Your task to perform on an android device: Search for seafood restaurants on Google Maps Image 0: 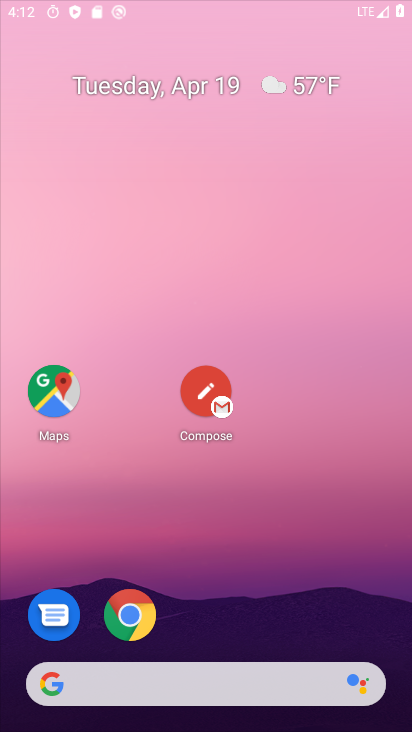
Step 0: click (226, 14)
Your task to perform on an android device: Search for seafood restaurants on Google Maps Image 1: 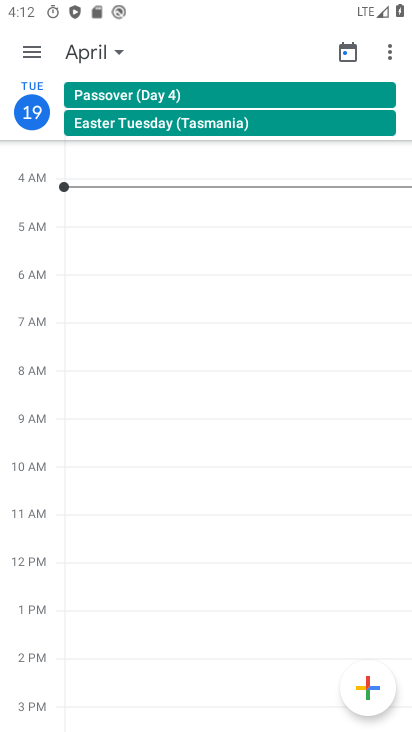
Step 1: press home button
Your task to perform on an android device: Search for seafood restaurants on Google Maps Image 2: 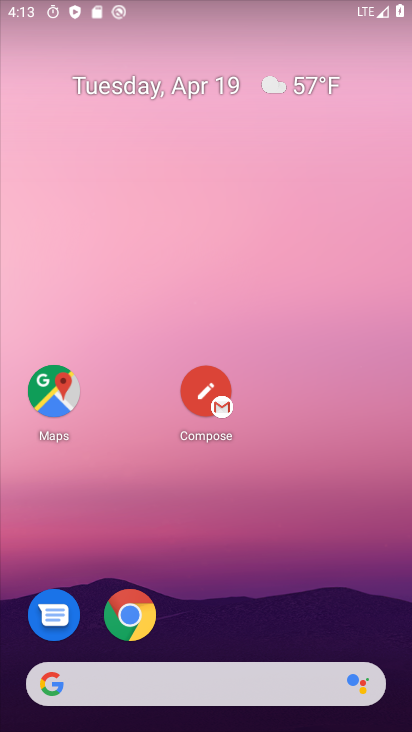
Step 2: drag from (277, 715) to (290, 49)
Your task to perform on an android device: Search for seafood restaurants on Google Maps Image 3: 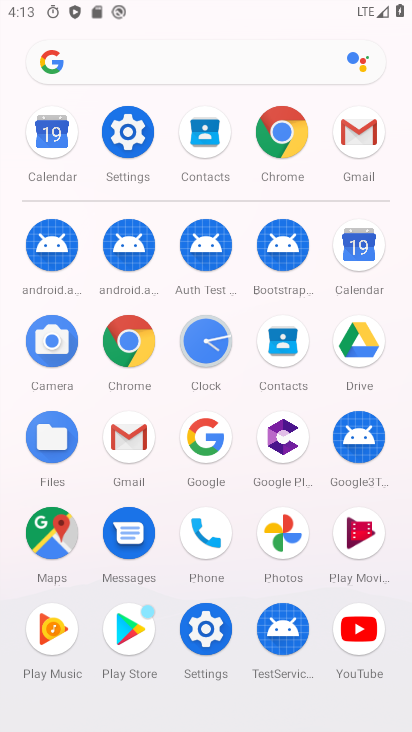
Step 3: click (60, 543)
Your task to perform on an android device: Search for seafood restaurants on Google Maps Image 4: 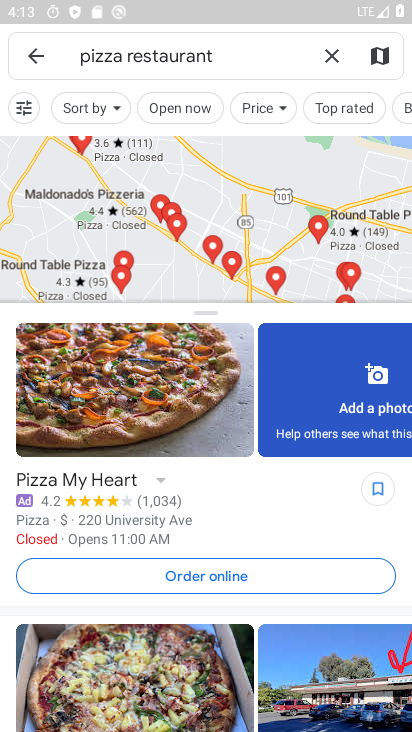
Step 4: click (329, 51)
Your task to perform on an android device: Search for seafood restaurants on Google Maps Image 5: 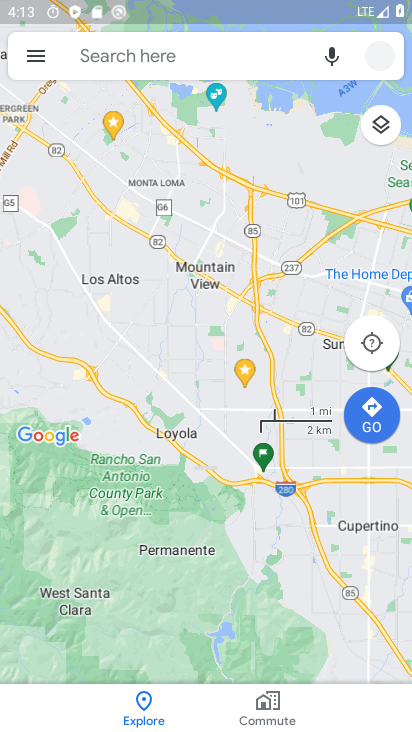
Step 5: click (268, 58)
Your task to perform on an android device: Search for seafood restaurants on Google Maps Image 6: 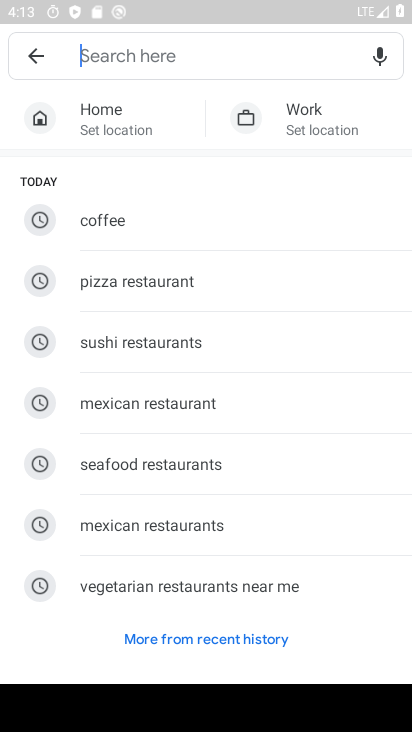
Step 6: type "seafood restaurant"
Your task to perform on an android device: Search for seafood restaurants on Google Maps Image 7: 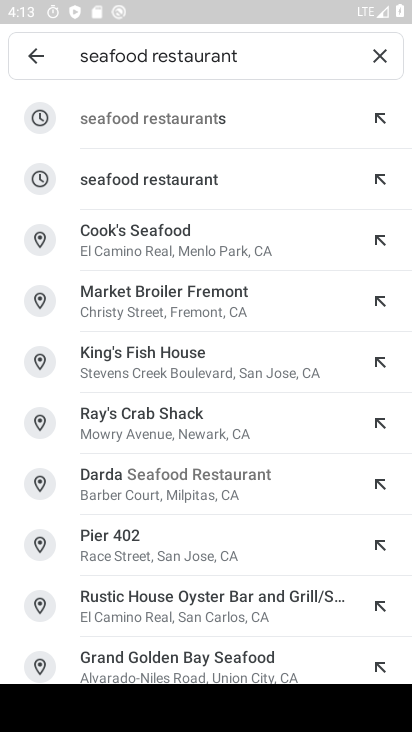
Step 7: click (209, 182)
Your task to perform on an android device: Search for seafood restaurants on Google Maps Image 8: 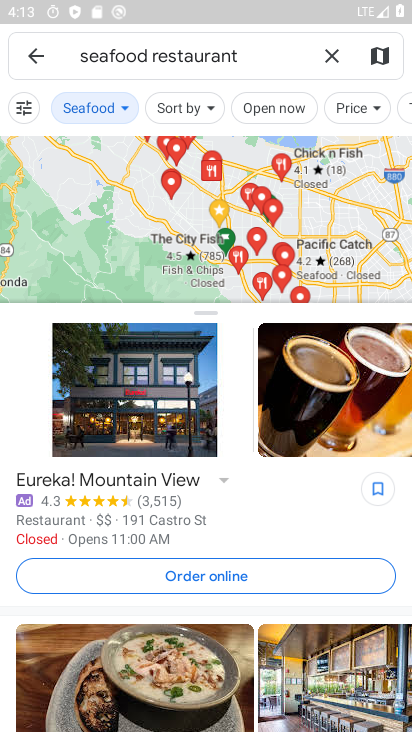
Step 8: task complete